Your task to perform on an android device: toggle priority inbox in the gmail app Image 0: 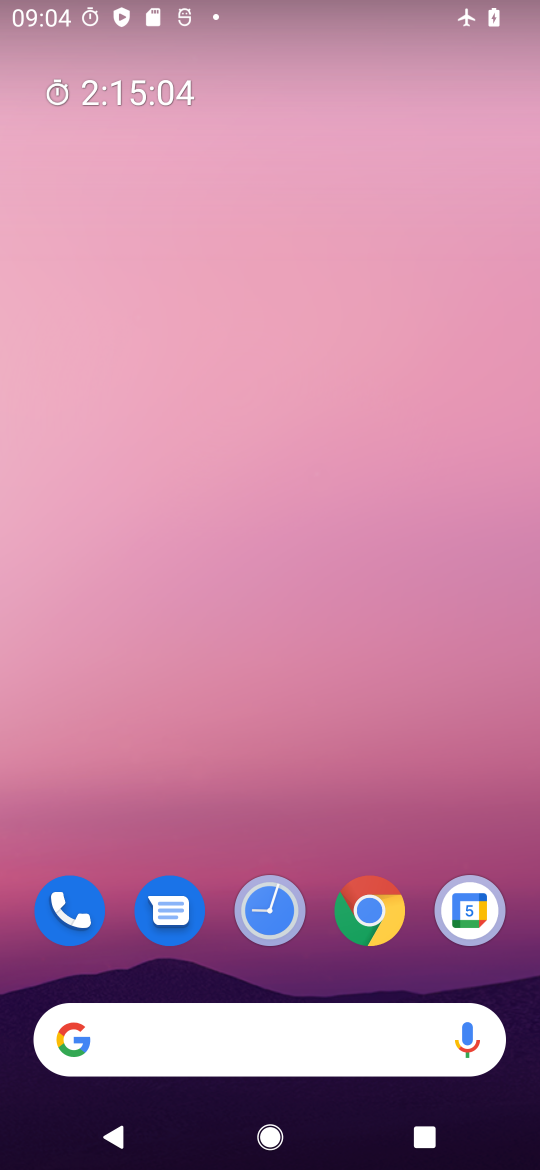
Step 0: drag from (335, 1061) to (366, 301)
Your task to perform on an android device: toggle priority inbox in the gmail app Image 1: 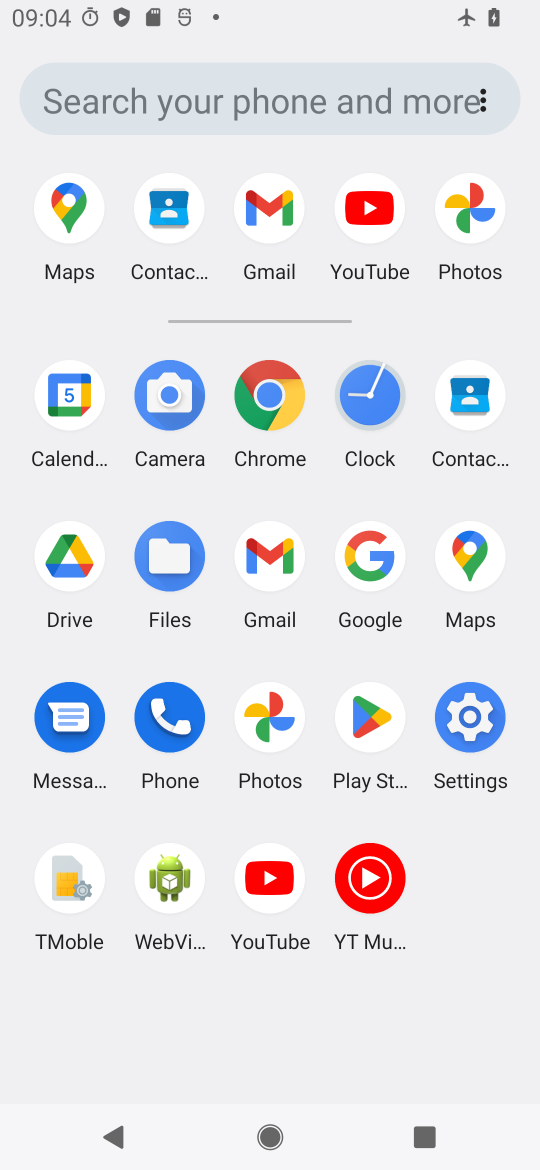
Step 1: click (280, 555)
Your task to perform on an android device: toggle priority inbox in the gmail app Image 2: 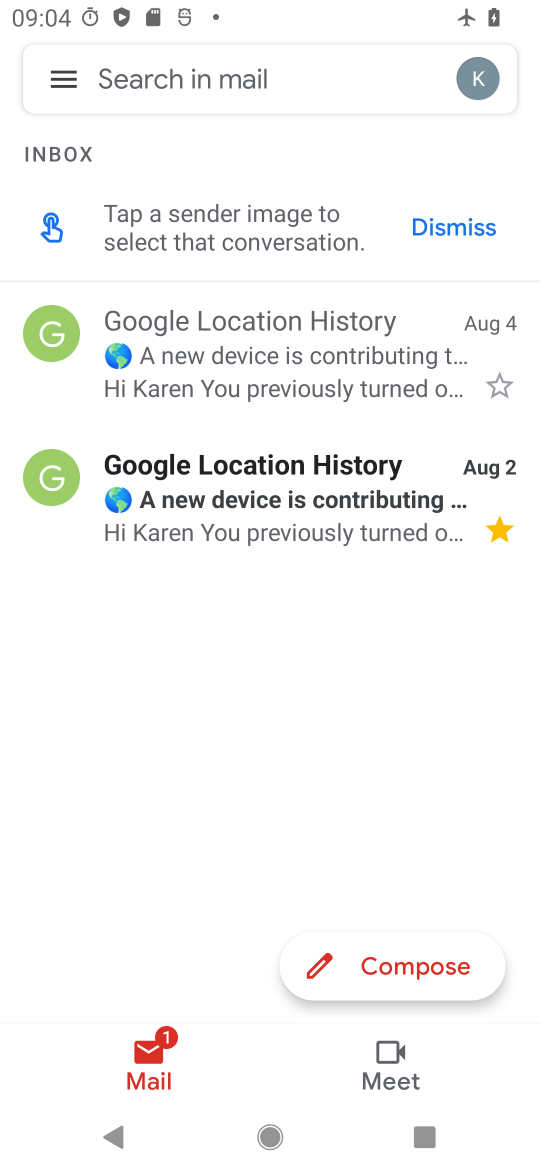
Step 2: click (60, 78)
Your task to perform on an android device: toggle priority inbox in the gmail app Image 3: 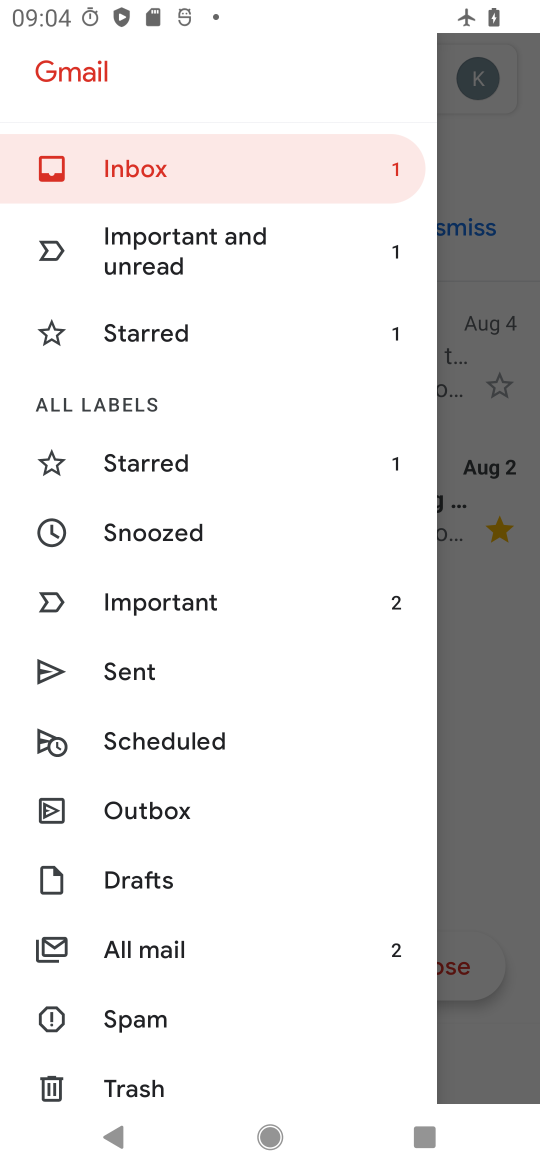
Step 3: drag from (303, 1018) to (291, 86)
Your task to perform on an android device: toggle priority inbox in the gmail app Image 4: 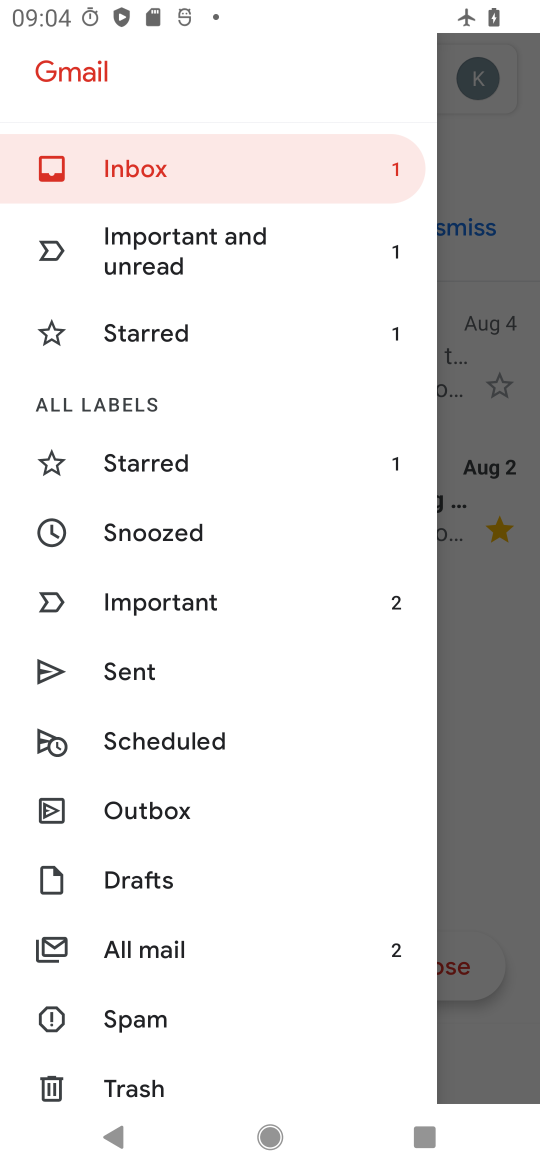
Step 4: drag from (249, 1074) to (311, 394)
Your task to perform on an android device: toggle priority inbox in the gmail app Image 5: 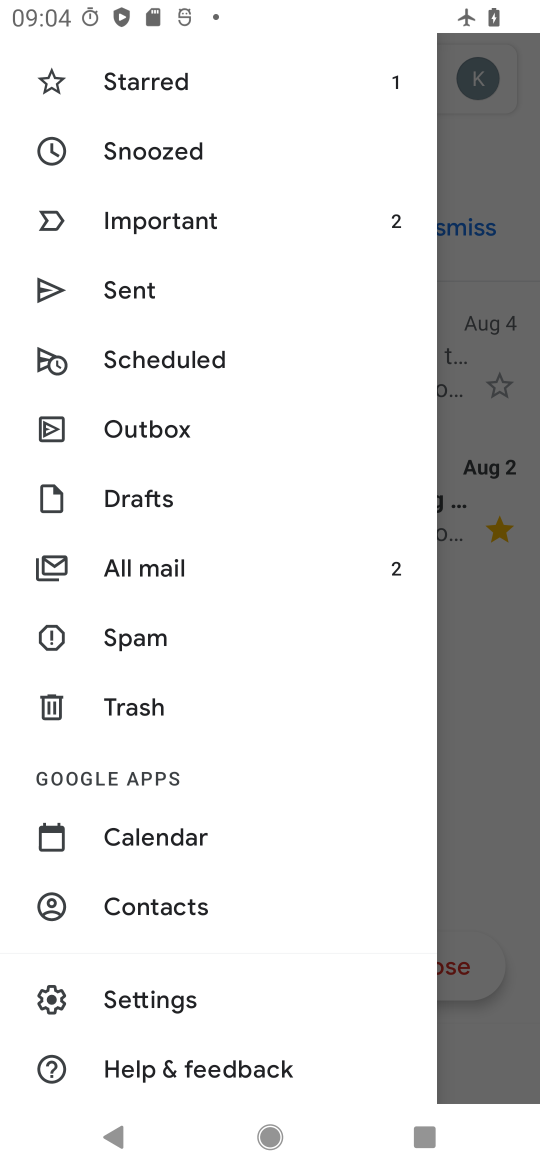
Step 5: click (164, 994)
Your task to perform on an android device: toggle priority inbox in the gmail app Image 6: 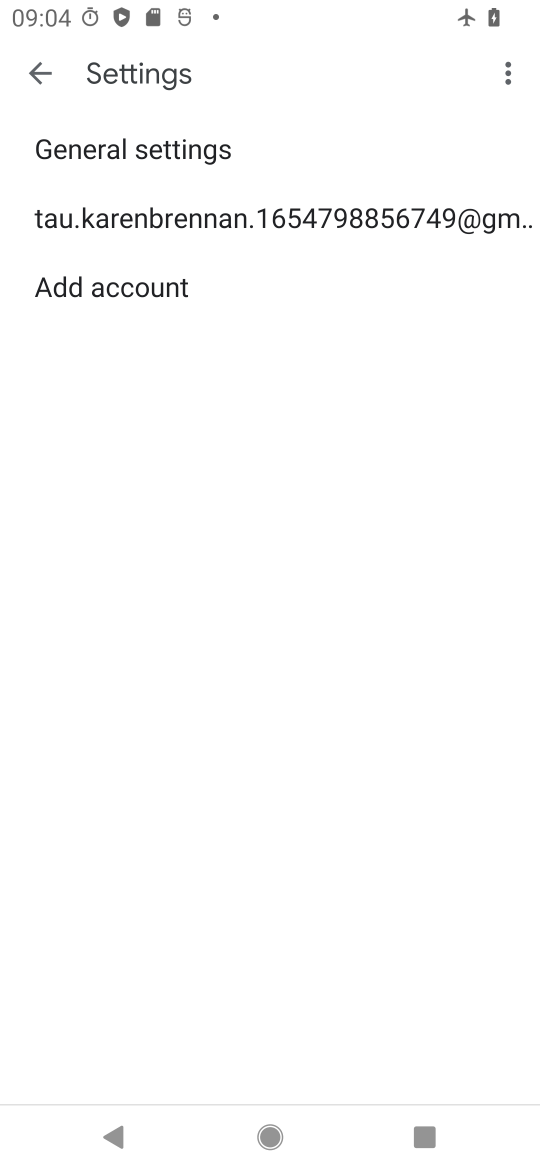
Step 6: click (262, 222)
Your task to perform on an android device: toggle priority inbox in the gmail app Image 7: 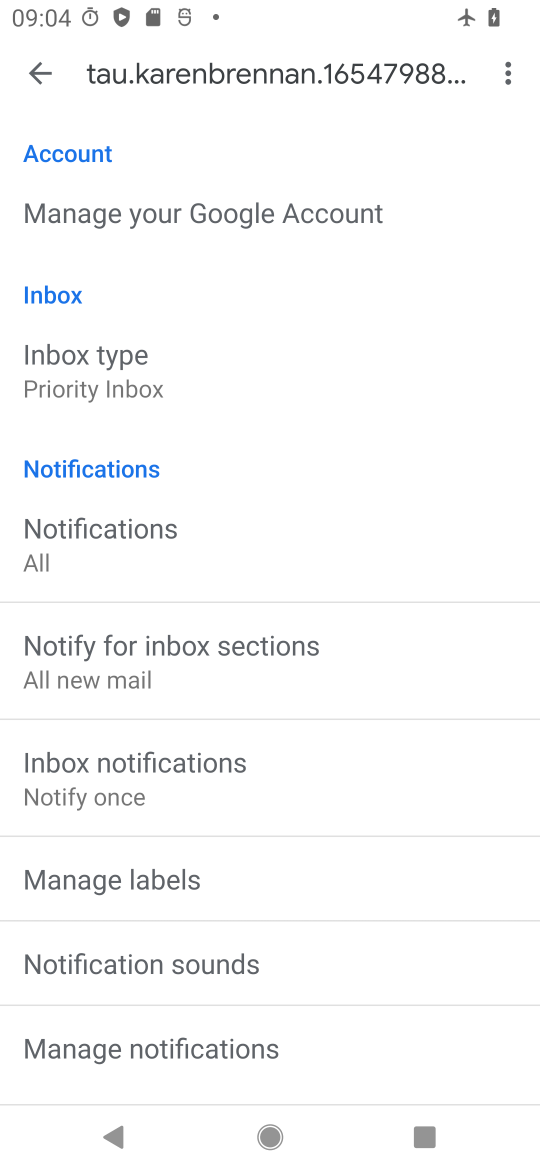
Step 7: click (132, 390)
Your task to perform on an android device: toggle priority inbox in the gmail app Image 8: 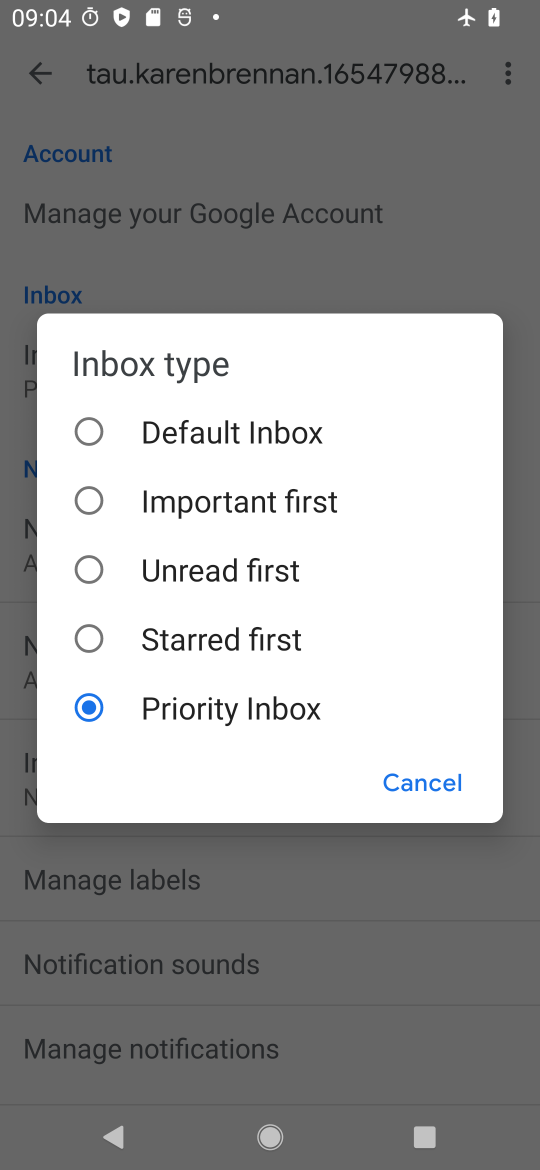
Step 8: click (86, 434)
Your task to perform on an android device: toggle priority inbox in the gmail app Image 9: 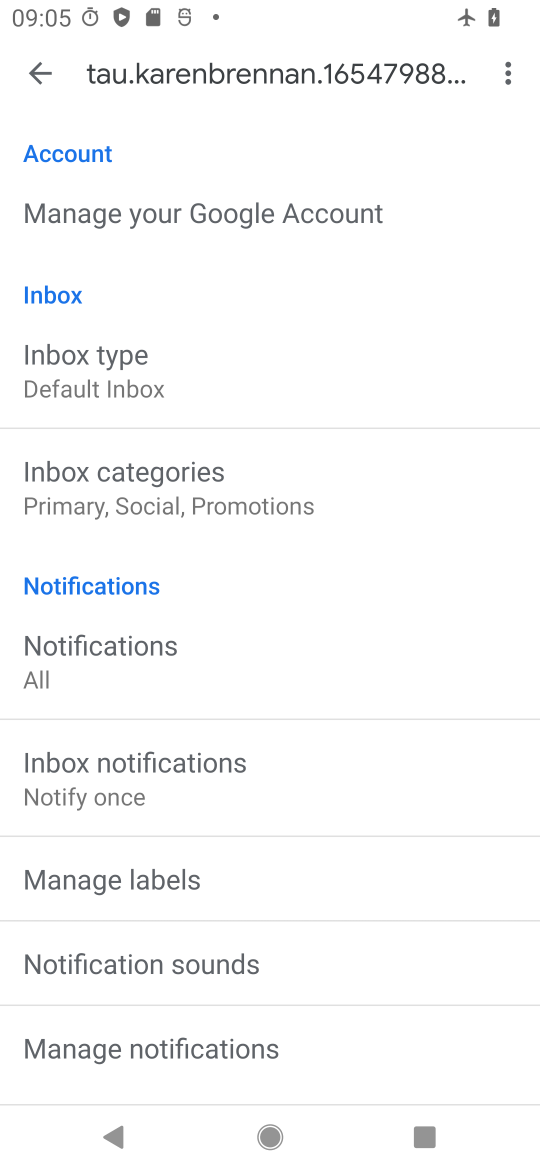
Step 9: task complete